Your task to perform on an android device: show emergency info Image 0: 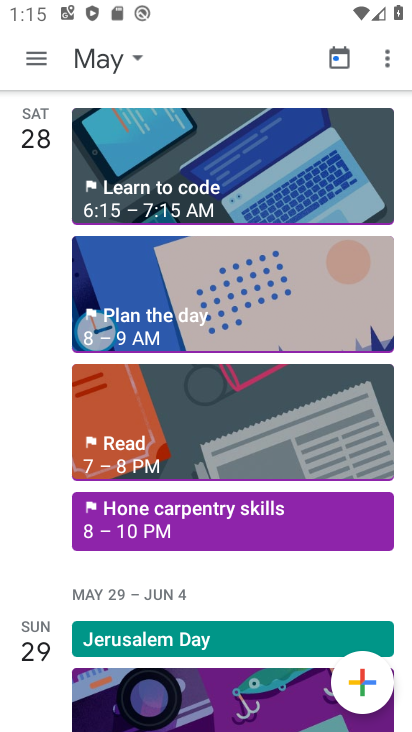
Step 0: press home button
Your task to perform on an android device: show emergency info Image 1: 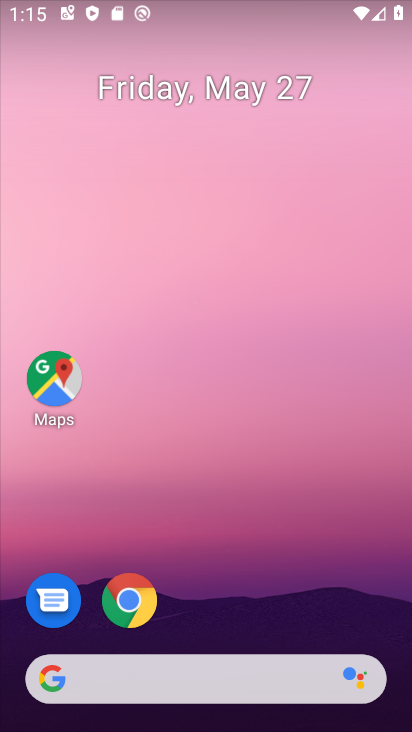
Step 1: drag from (204, 679) to (204, 118)
Your task to perform on an android device: show emergency info Image 2: 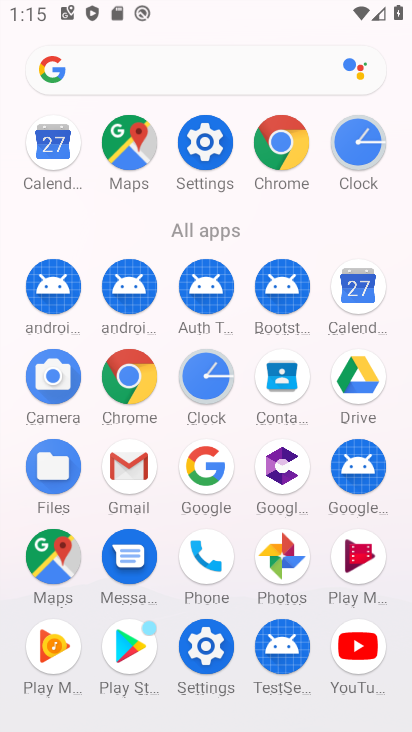
Step 2: click (211, 139)
Your task to perform on an android device: show emergency info Image 3: 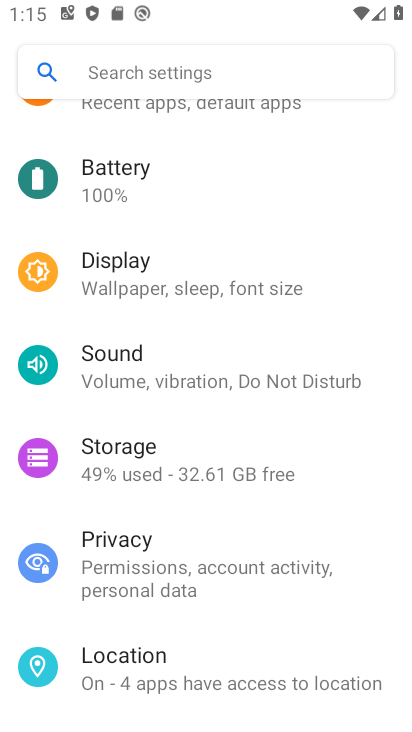
Step 3: drag from (212, 667) to (200, 308)
Your task to perform on an android device: show emergency info Image 4: 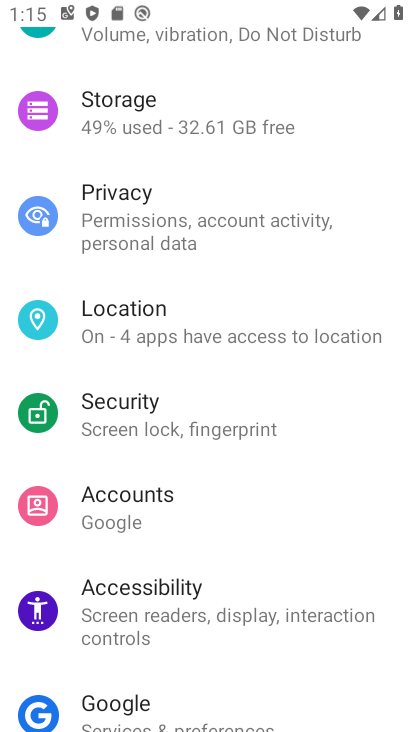
Step 4: drag from (185, 696) to (204, 272)
Your task to perform on an android device: show emergency info Image 5: 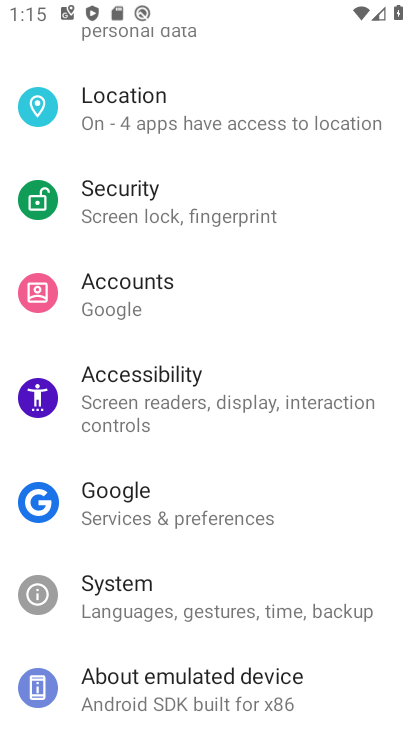
Step 5: click (202, 671)
Your task to perform on an android device: show emergency info Image 6: 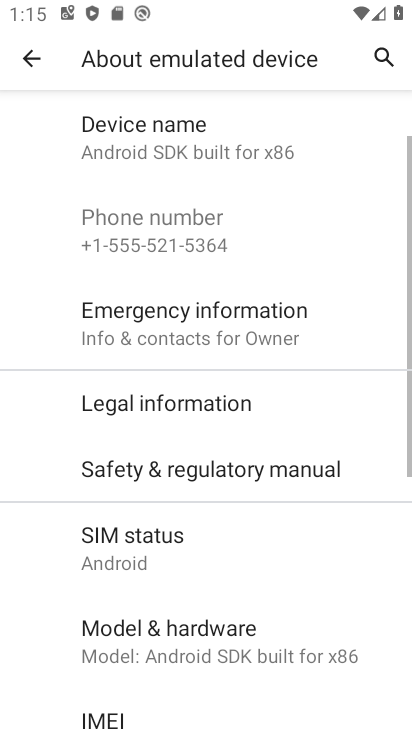
Step 6: click (260, 316)
Your task to perform on an android device: show emergency info Image 7: 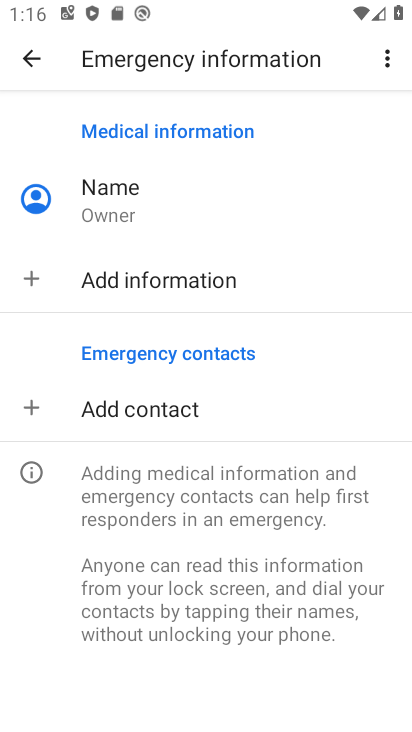
Step 7: task complete